Your task to perform on an android device: empty trash in google photos Image 0: 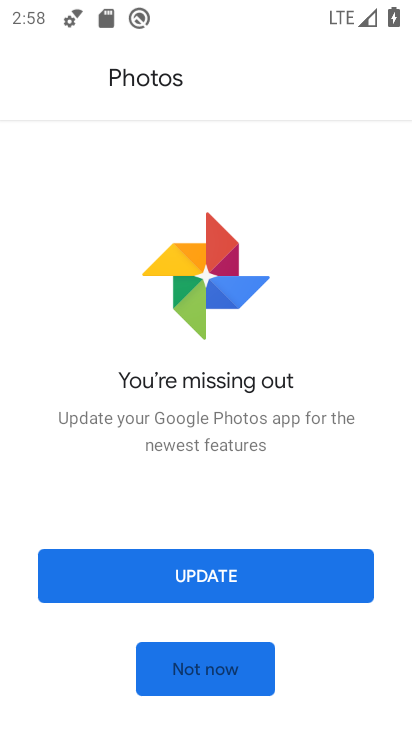
Step 0: click (236, 678)
Your task to perform on an android device: empty trash in google photos Image 1: 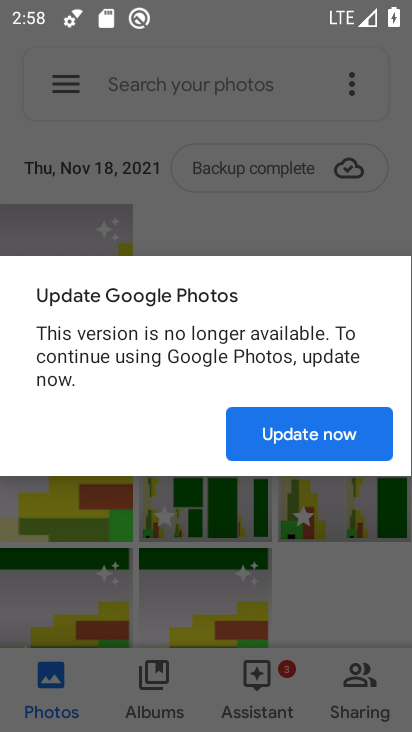
Step 1: click (314, 434)
Your task to perform on an android device: empty trash in google photos Image 2: 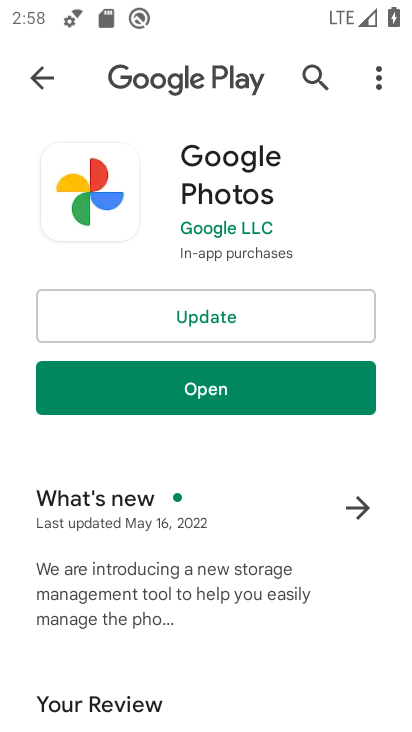
Step 2: click (257, 385)
Your task to perform on an android device: empty trash in google photos Image 3: 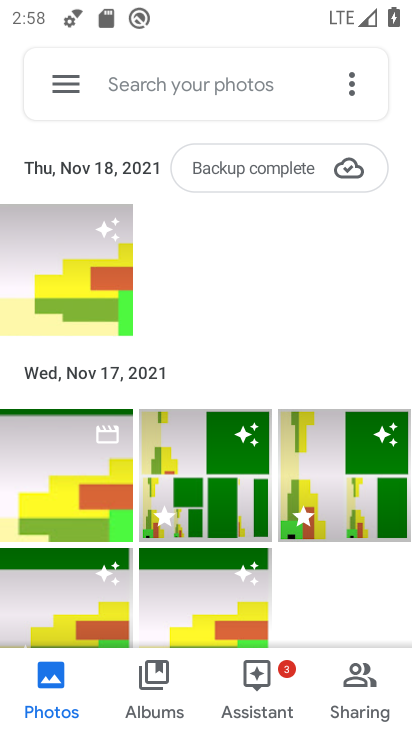
Step 3: click (55, 80)
Your task to perform on an android device: empty trash in google photos Image 4: 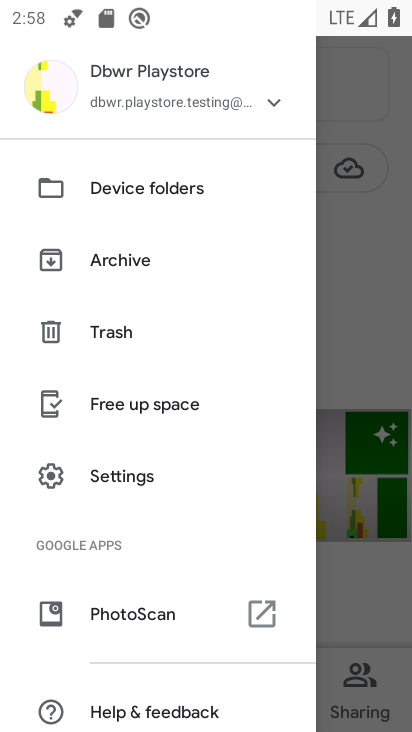
Step 4: click (97, 325)
Your task to perform on an android device: empty trash in google photos Image 5: 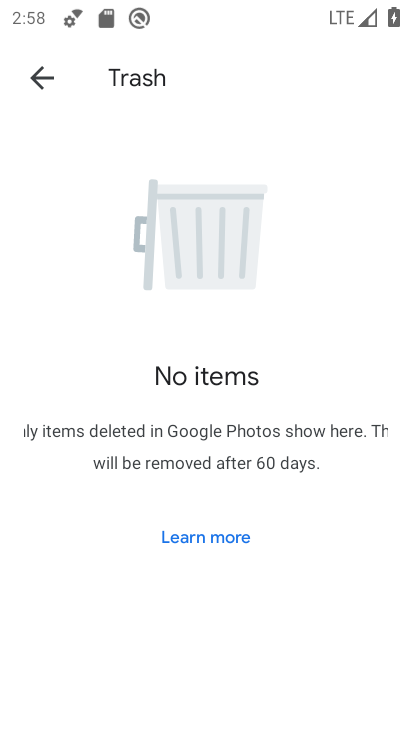
Step 5: task complete